Your task to perform on an android device: Open Youtube and go to the subscriptions tab Image 0: 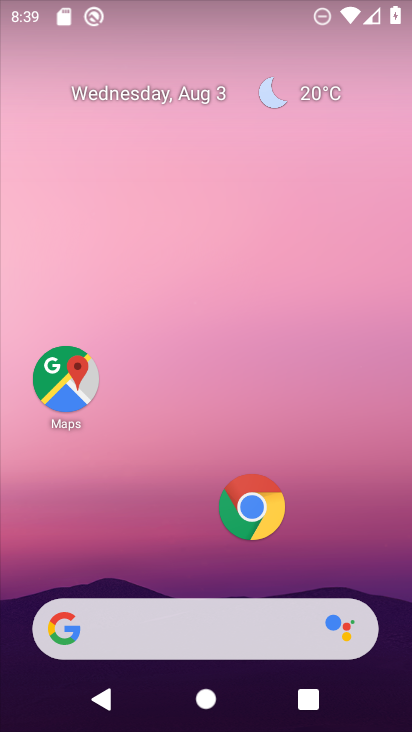
Step 0: drag from (179, 319) to (179, 112)
Your task to perform on an android device: Open Youtube and go to the subscriptions tab Image 1: 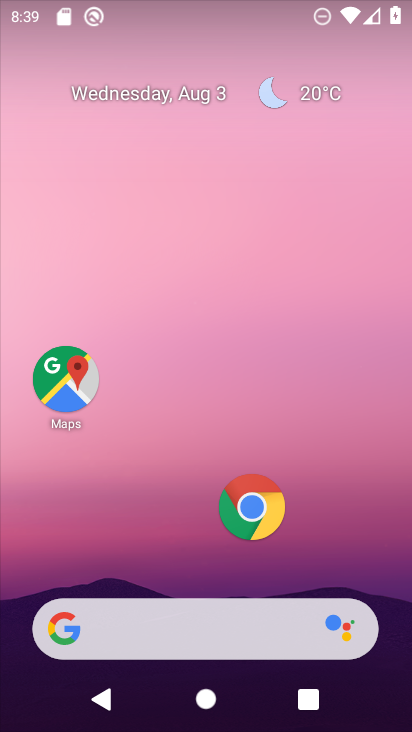
Step 1: click (187, 169)
Your task to perform on an android device: Open Youtube and go to the subscriptions tab Image 2: 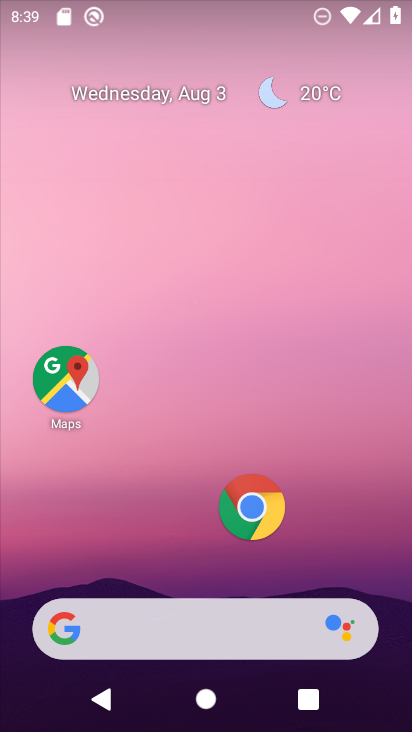
Step 2: drag from (187, 561) to (192, 98)
Your task to perform on an android device: Open Youtube and go to the subscriptions tab Image 3: 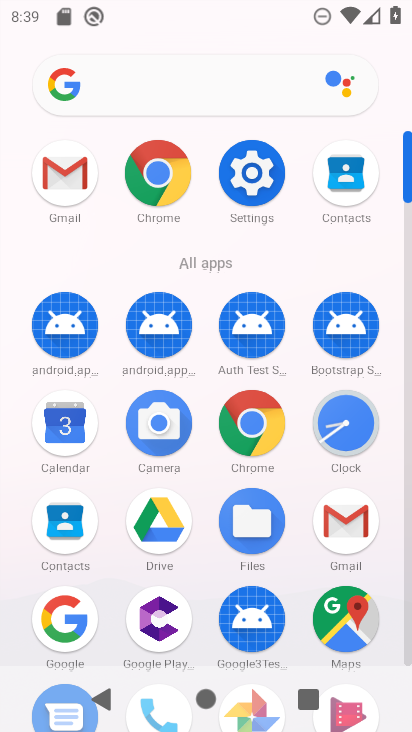
Step 3: drag from (189, 610) to (189, 129)
Your task to perform on an android device: Open Youtube and go to the subscriptions tab Image 4: 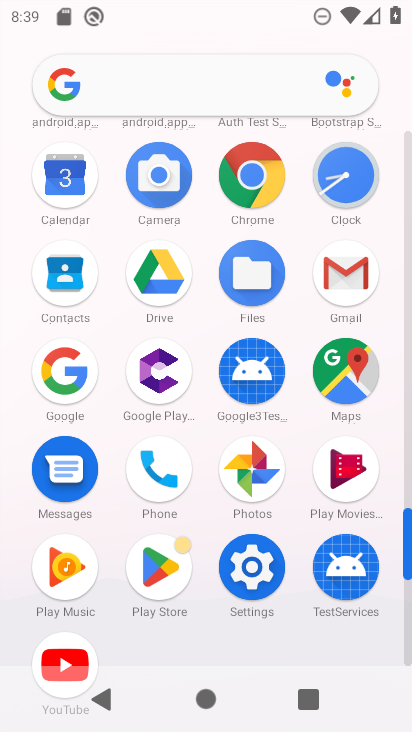
Step 4: drag from (133, 634) to (142, 186)
Your task to perform on an android device: Open Youtube and go to the subscriptions tab Image 5: 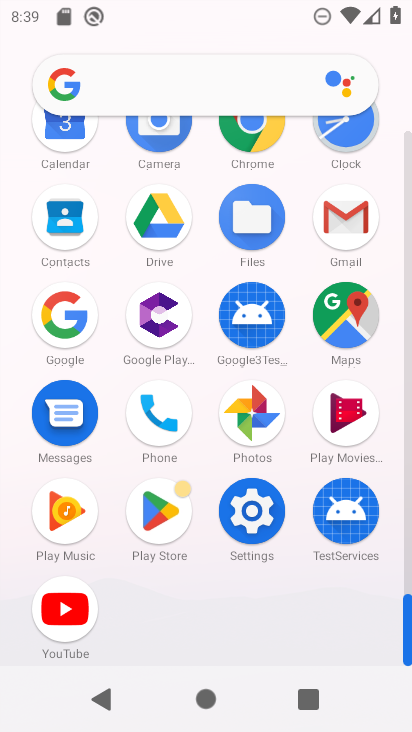
Step 5: click (61, 608)
Your task to perform on an android device: Open Youtube and go to the subscriptions tab Image 6: 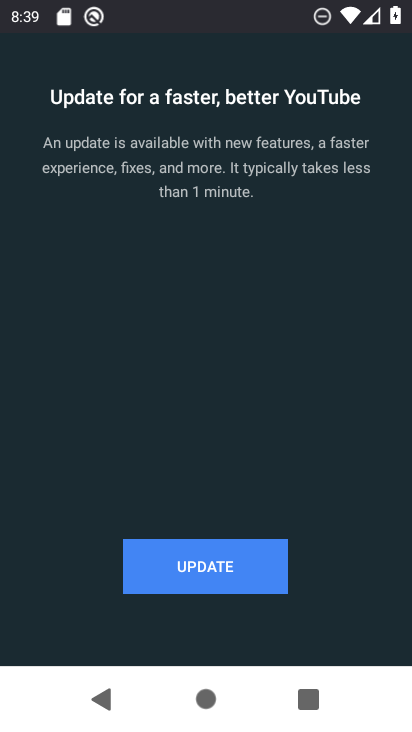
Step 6: click (172, 566)
Your task to perform on an android device: Open Youtube and go to the subscriptions tab Image 7: 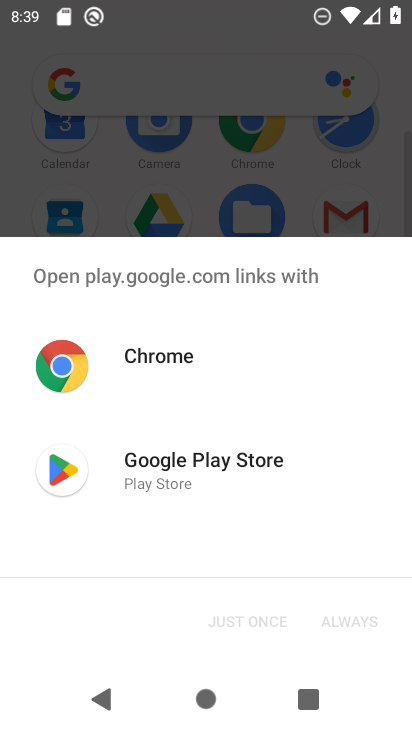
Step 7: click (158, 480)
Your task to perform on an android device: Open Youtube and go to the subscriptions tab Image 8: 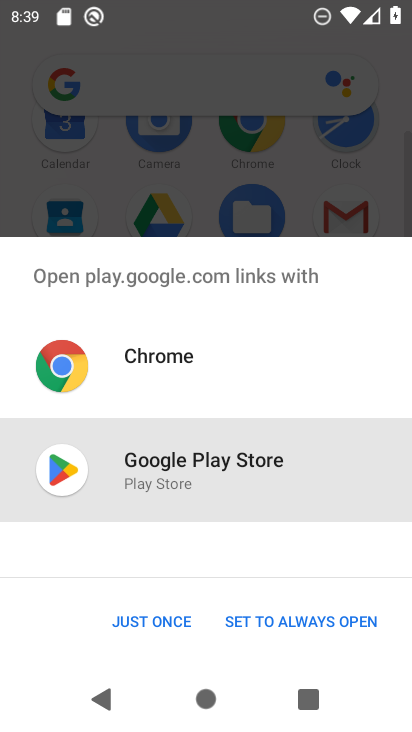
Step 8: click (166, 619)
Your task to perform on an android device: Open Youtube and go to the subscriptions tab Image 9: 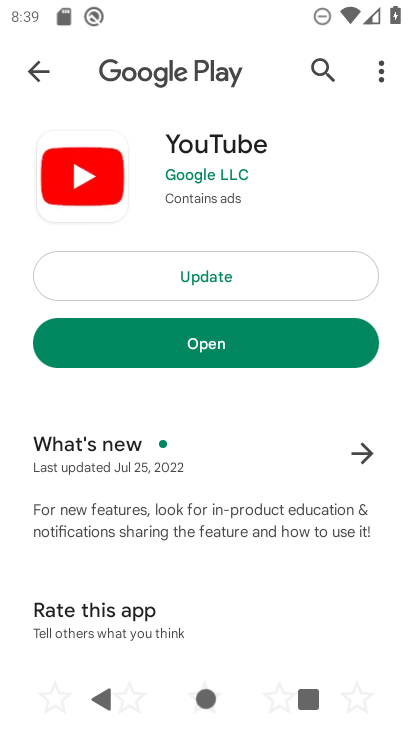
Step 9: click (210, 280)
Your task to perform on an android device: Open Youtube and go to the subscriptions tab Image 10: 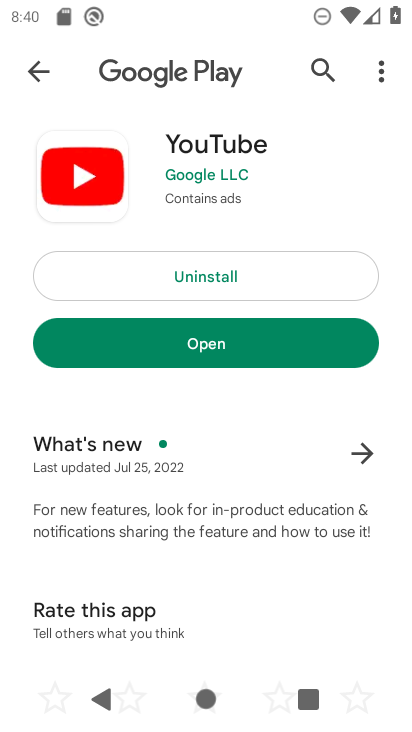
Step 10: click (192, 342)
Your task to perform on an android device: Open Youtube and go to the subscriptions tab Image 11: 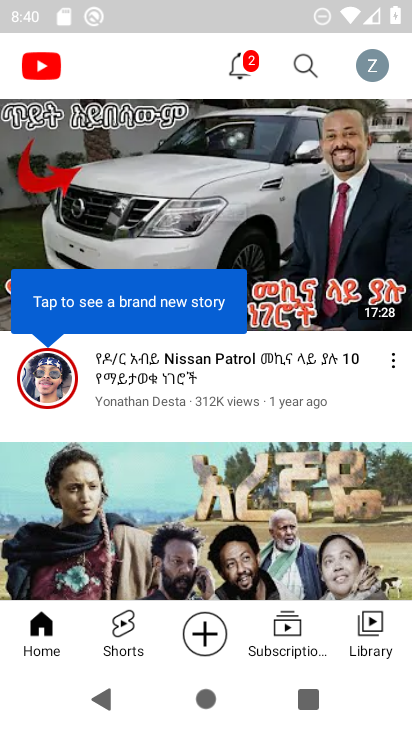
Step 11: click (283, 631)
Your task to perform on an android device: Open Youtube and go to the subscriptions tab Image 12: 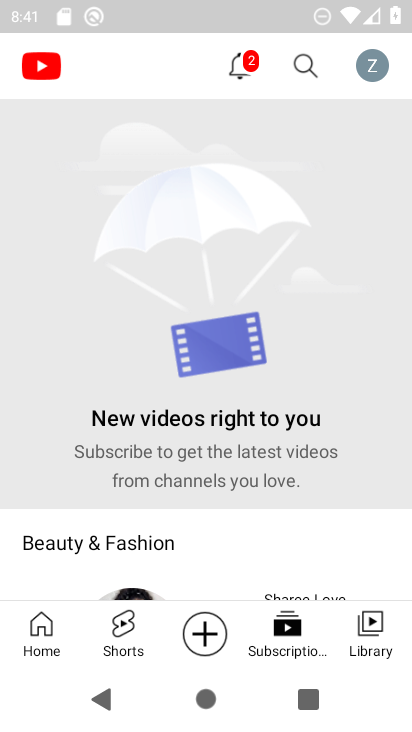
Step 12: task complete